Your task to perform on an android device: find which apps use the phone's location Image 0: 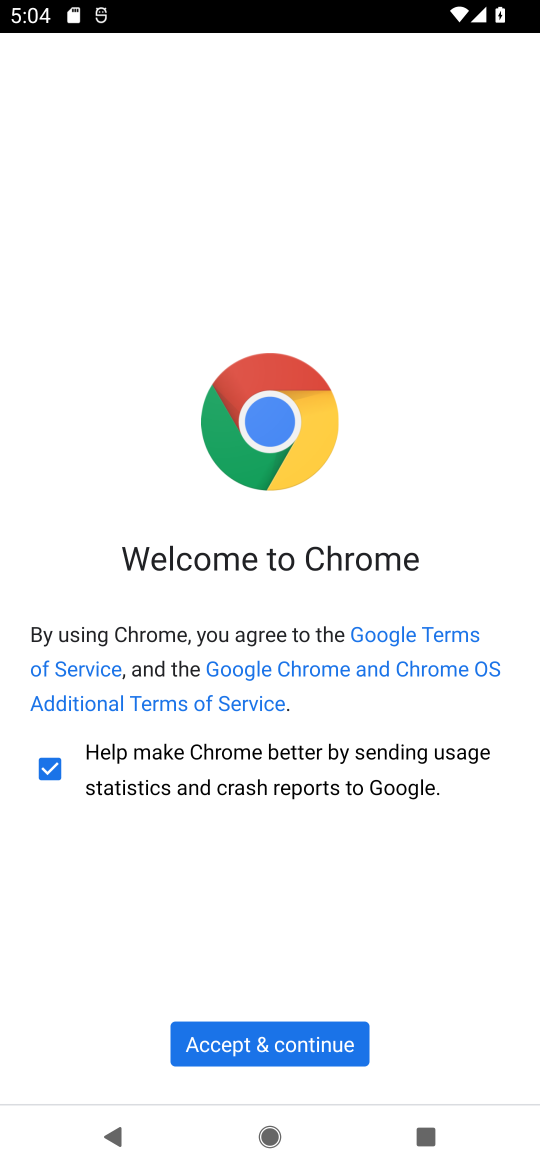
Step 0: press home button
Your task to perform on an android device: find which apps use the phone's location Image 1: 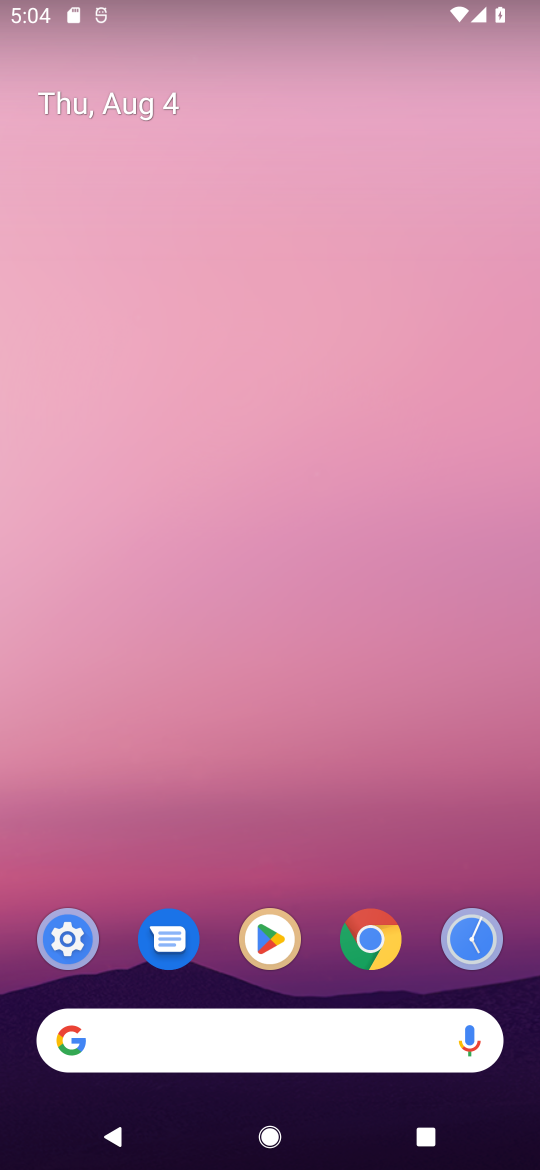
Step 1: drag from (172, 1014) to (315, 319)
Your task to perform on an android device: find which apps use the phone's location Image 2: 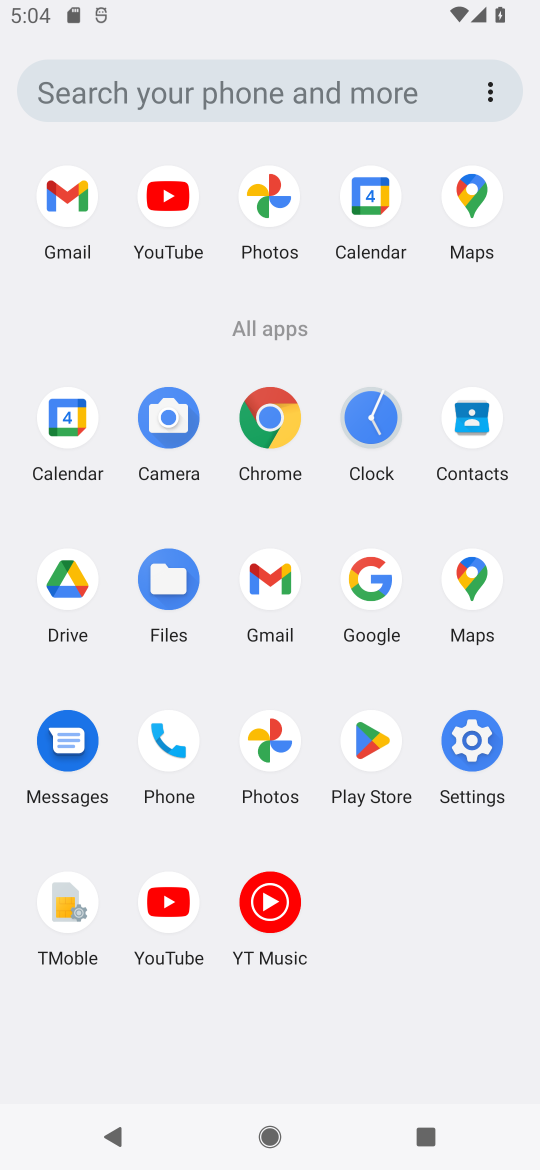
Step 2: click (475, 737)
Your task to perform on an android device: find which apps use the phone's location Image 3: 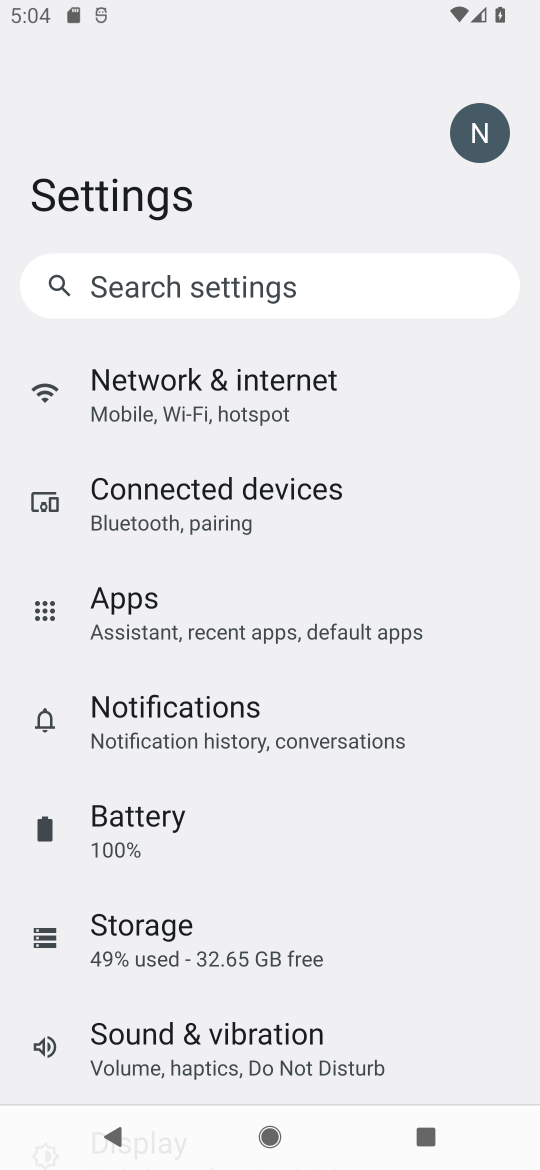
Step 3: drag from (162, 1022) to (170, 381)
Your task to perform on an android device: find which apps use the phone's location Image 4: 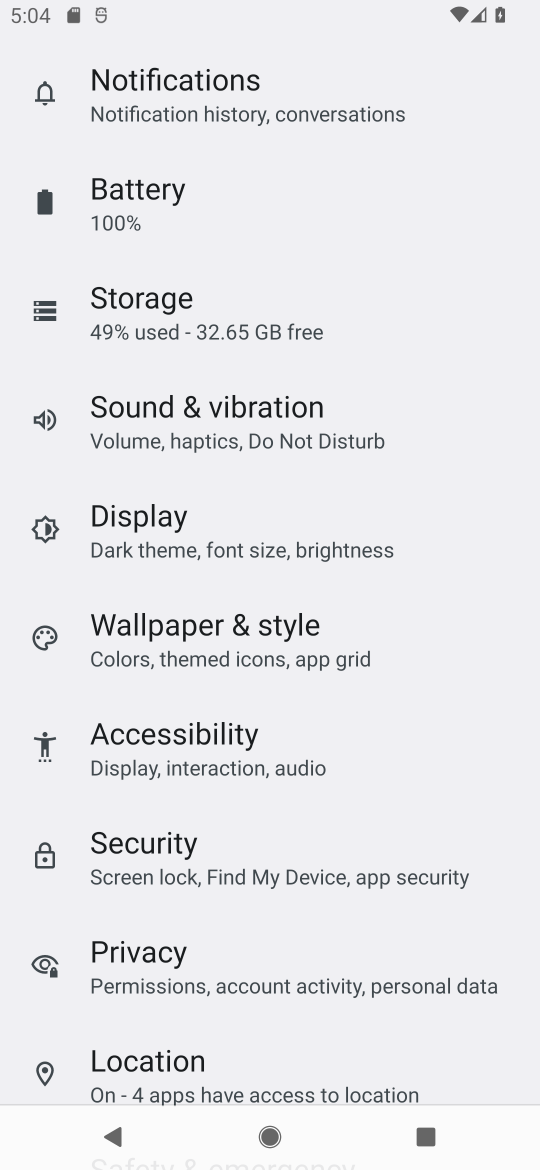
Step 4: click (141, 1085)
Your task to perform on an android device: find which apps use the phone's location Image 5: 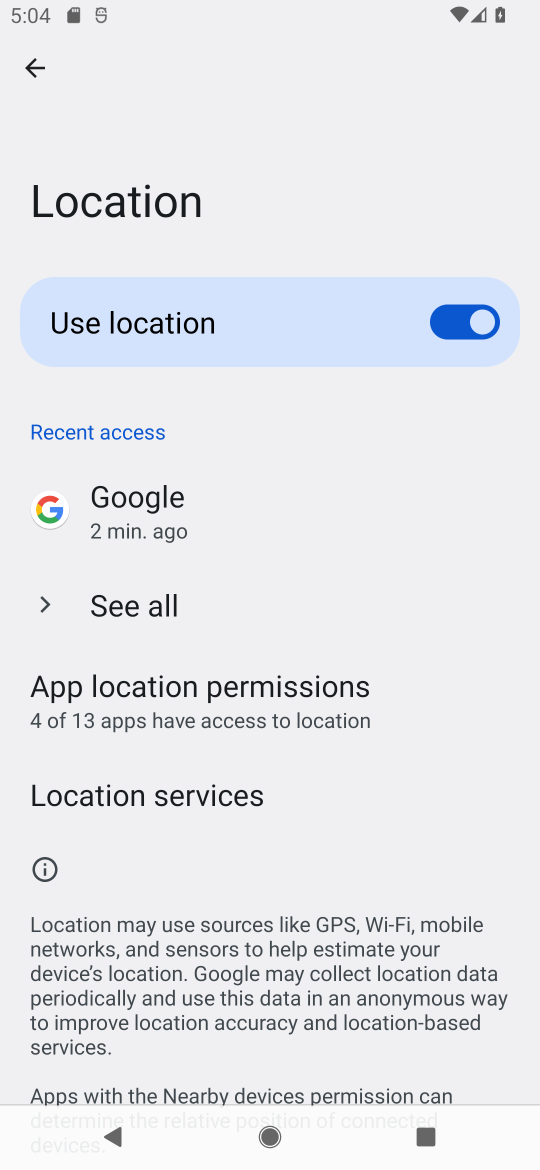
Step 5: click (108, 699)
Your task to perform on an android device: find which apps use the phone's location Image 6: 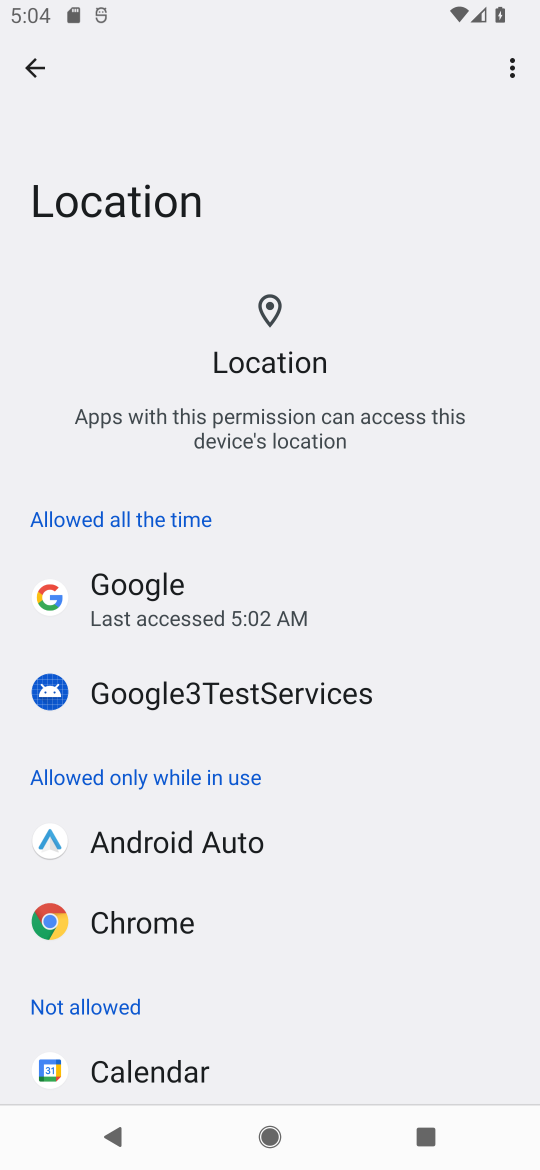
Step 6: task complete